Your task to perform on an android device: Open my contact list Image 0: 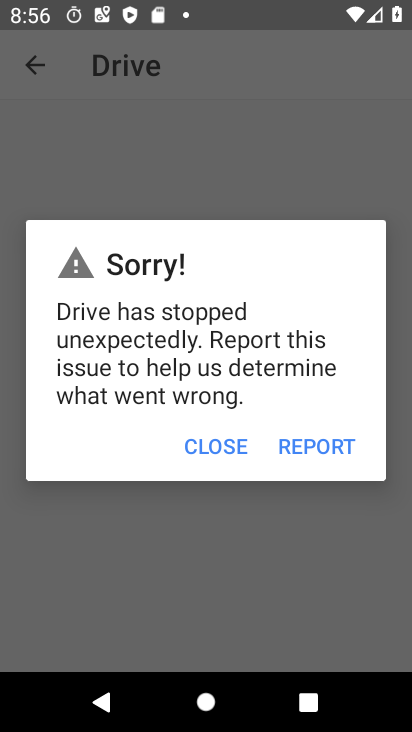
Step 0: press home button
Your task to perform on an android device: Open my contact list Image 1: 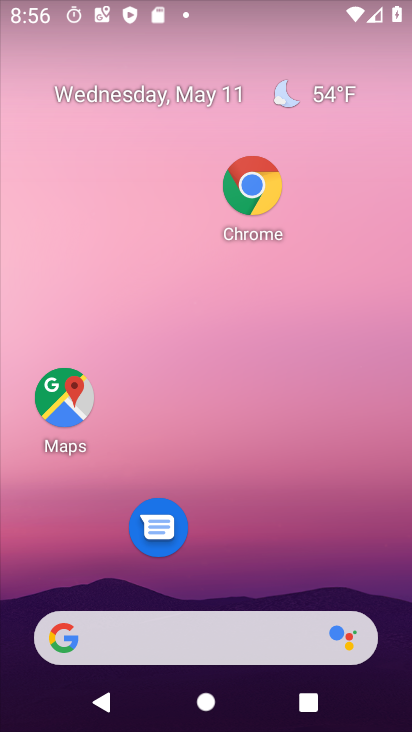
Step 1: drag from (242, 529) to (242, 41)
Your task to perform on an android device: Open my contact list Image 2: 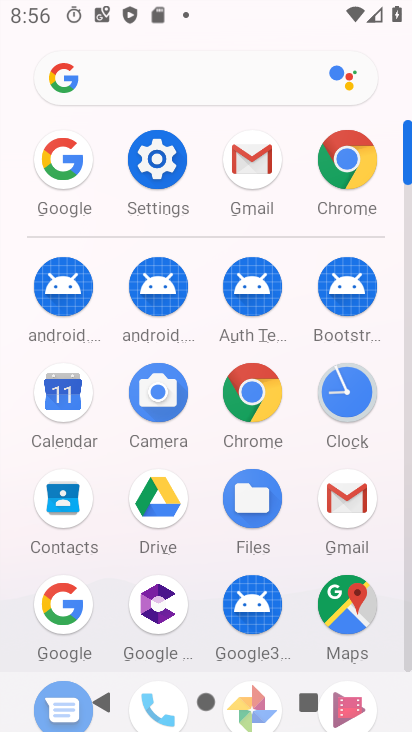
Step 2: click (65, 506)
Your task to perform on an android device: Open my contact list Image 3: 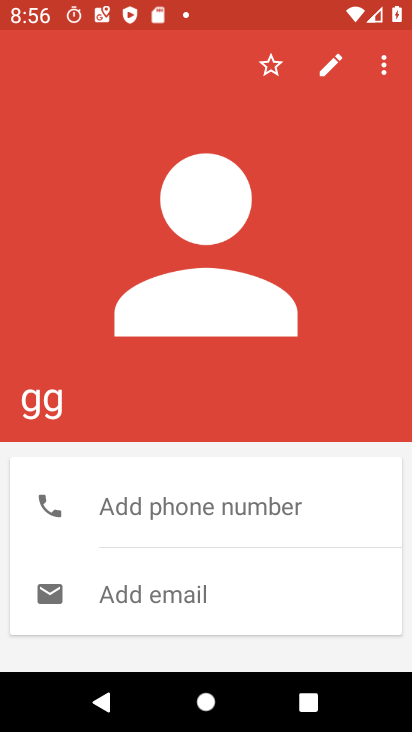
Step 3: task complete